Your task to perform on an android device: toggle translation in the chrome app Image 0: 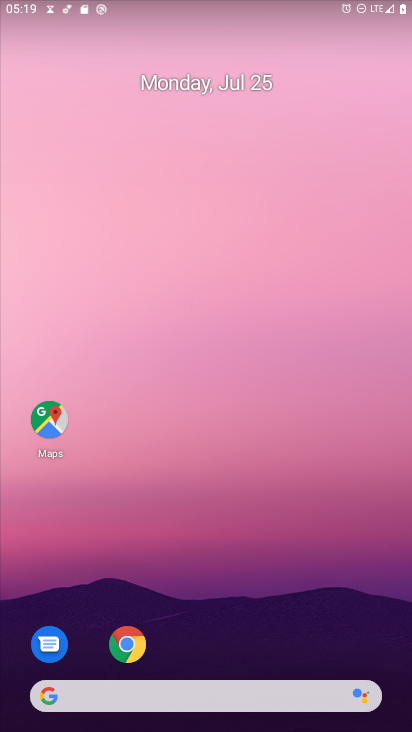
Step 0: press home button
Your task to perform on an android device: toggle translation in the chrome app Image 1: 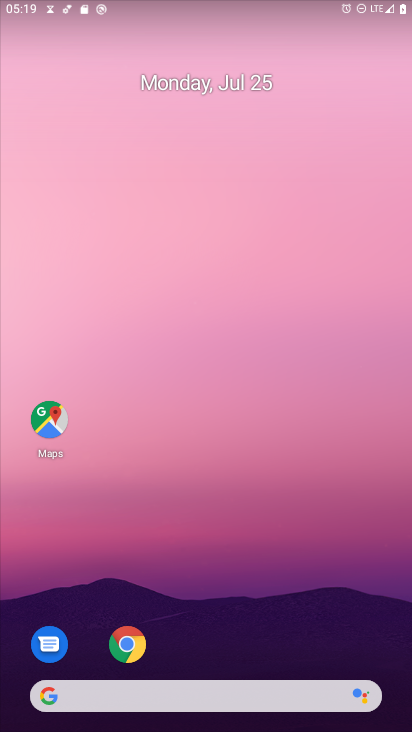
Step 1: click (137, 633)
Your task to perform on an android device: toggle translation in the chrome app Image 2: 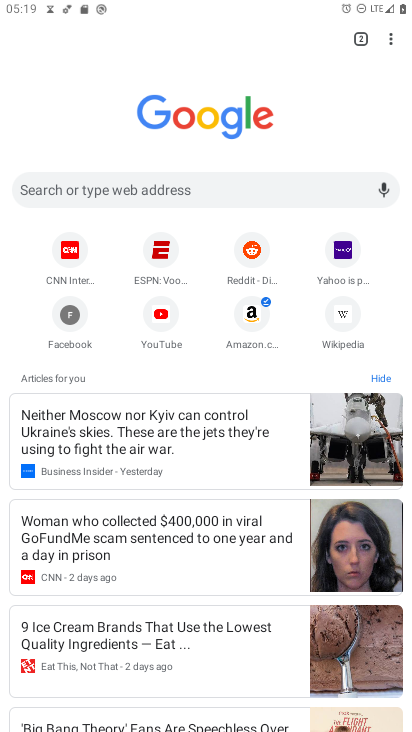
Step 2: drag from (389, 36) to (259, 326)
Your task to perform on an android device: toggle translation in the chrome app Image 3: 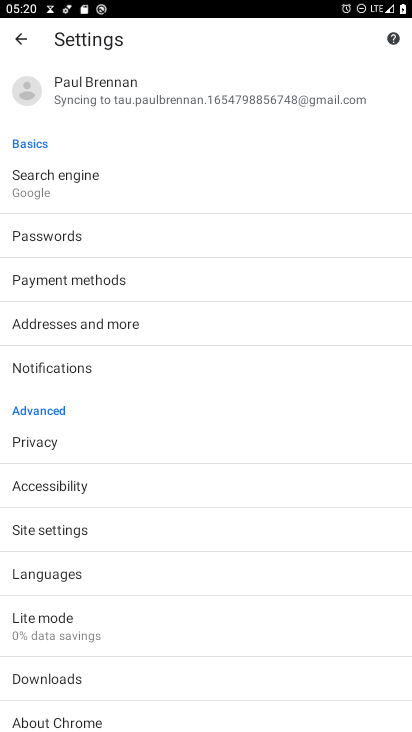
Step 3: click (116, 577)
Your task to perform on an android device: toggle translation in the chrome app Image 4: 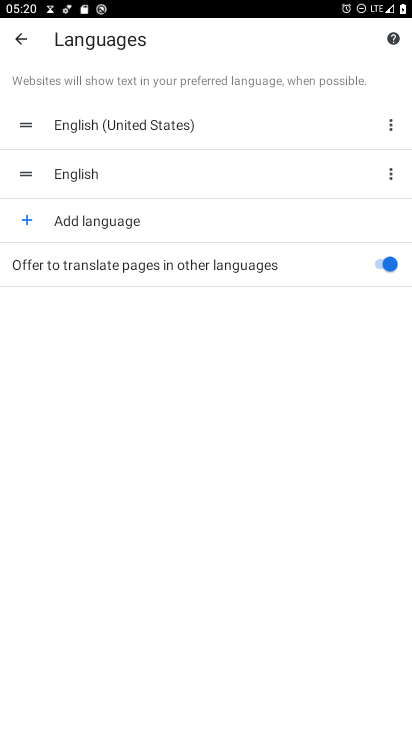
Step 4: click (392, 258)
Your task to perform on an android device: toggle translation in the chrome app Image 5: 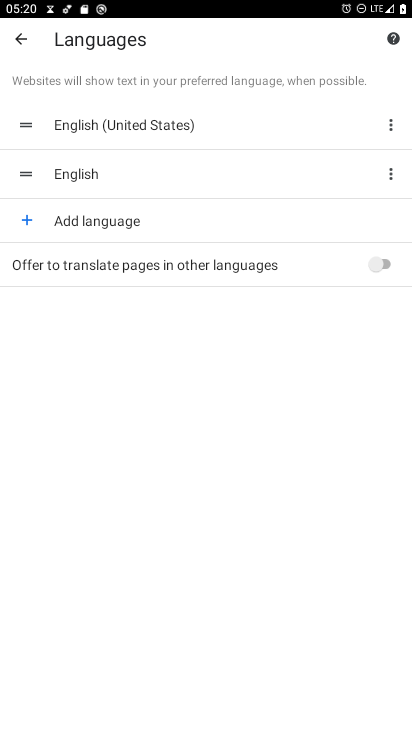
Step 5: task complete